Your task to perform on an android device: What is the recent news? Image 0: 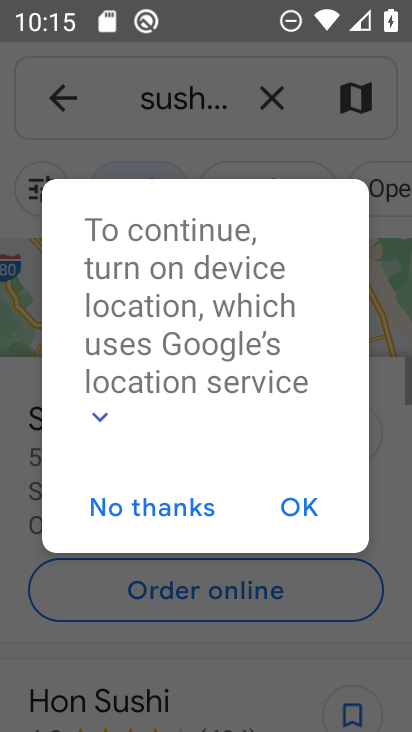
Step 0: press home button
Your task to perform on an android device: What is the recent news? Image 1: 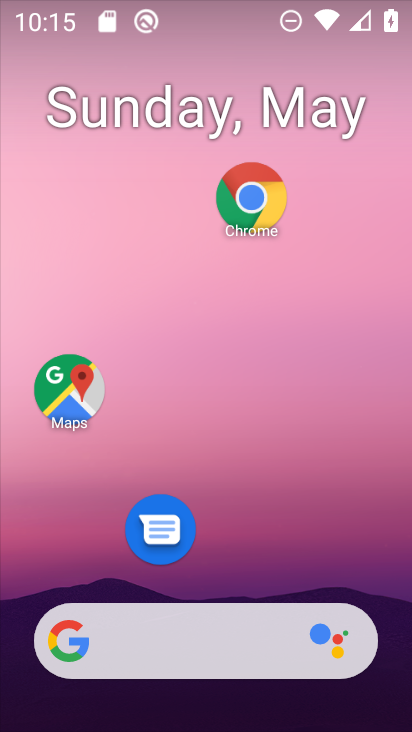
Step 1: click (148, 623)
Your task to perform on an android device: What is the recent news? Image 2: 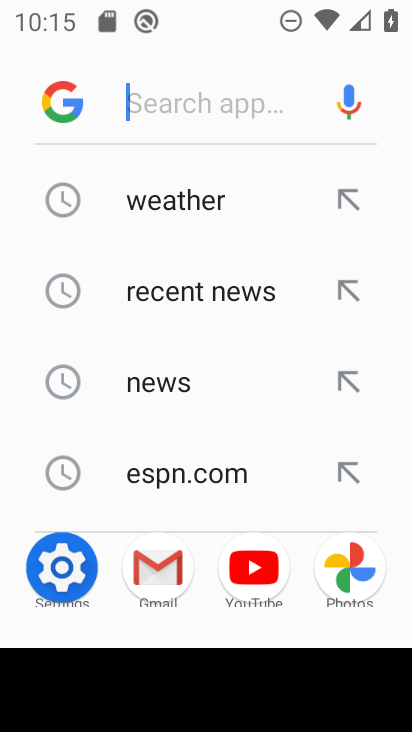
Step 2: type "what is the recent news"
Your task to perform on an android device: What is the recent news? Image 3: 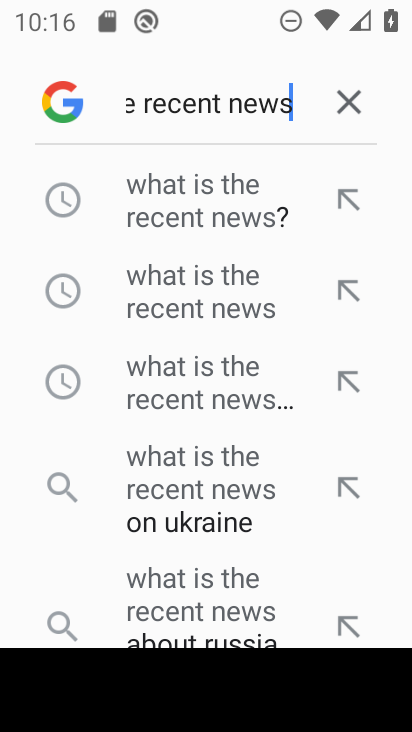
Step 3: click (193, 194)
Your task to perform on an android device: What is the recent news? Image 4: 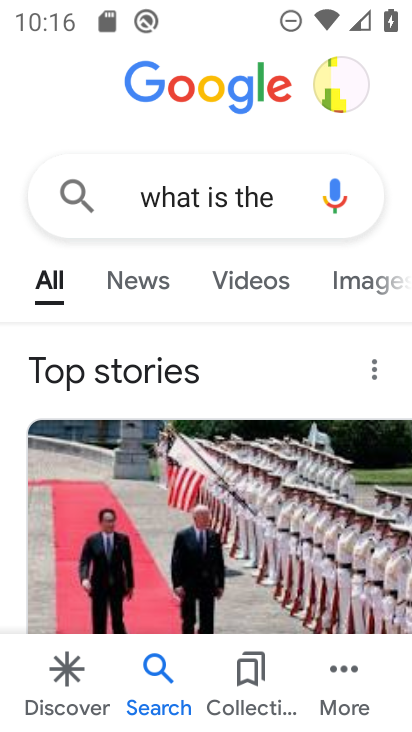
Step 4: click (155, 288)
Your task to perform on an android device: What is the recent news? Image 5: 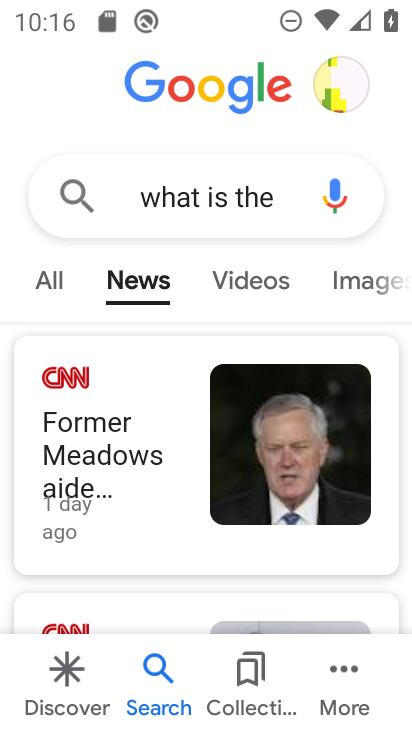
Step 5: task complete